Your task to perform on an android device: add a contact in the contacts app Image 0: 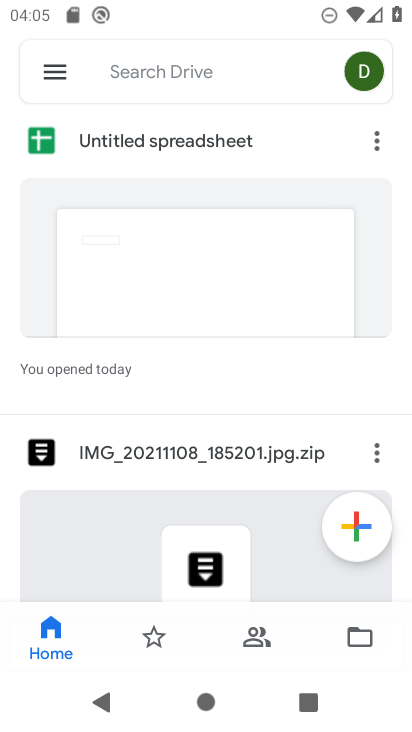
Step 0: press home button
Your task to perform on an android device: add a contact in the contacts app Image 1: 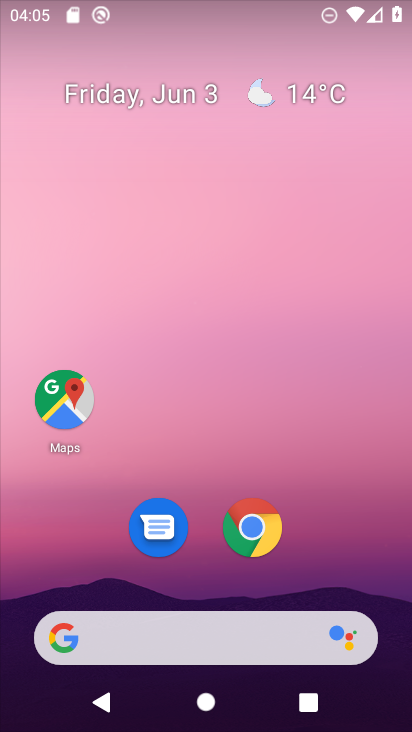
Step 1: drag from (339, 559) to (200, 9)
Your task to perform on an android device: add a contact in the contacts app Image 2: 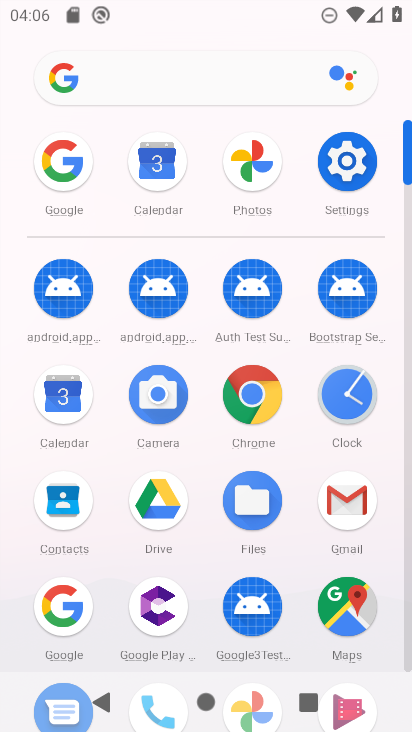
Step 2: click (63, 502)
Your task to perform on an android device: add a contact in the contacts app Image 3: 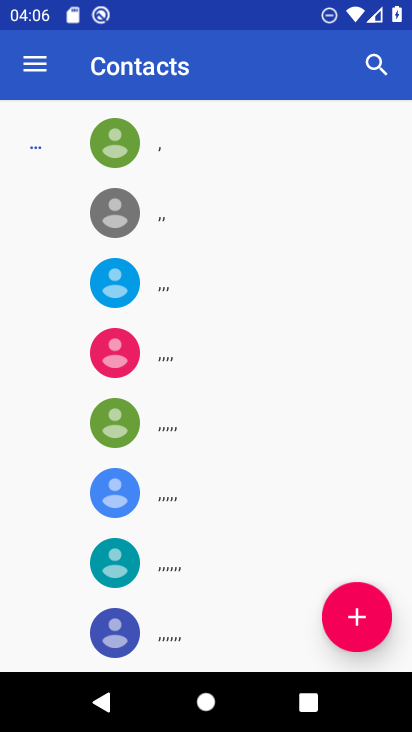
Step 3: click (355, 610)
Your task to perform on an android device: add a contact in the contacts app Image 4: 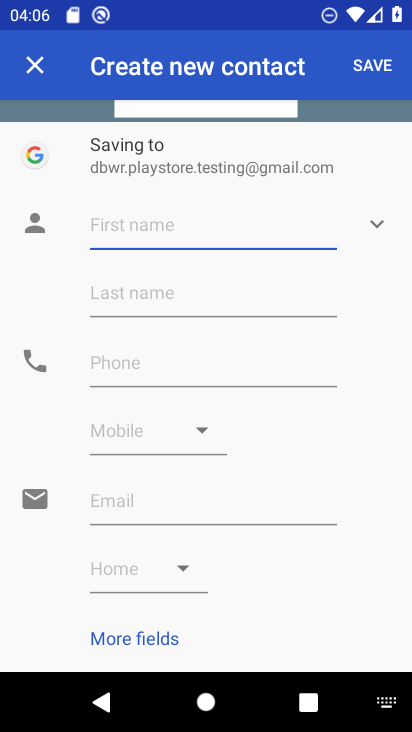
Step 4: click (231, 222)
Your task to perform on an android device: add a contact in the contacts app Image 5: 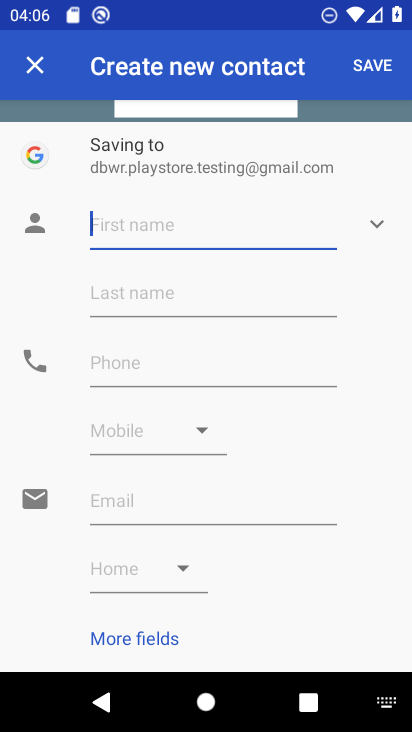
Step 5: type "Ratandeep"
Your task to perform on an android device: add a contact in the contacts app Image 6: 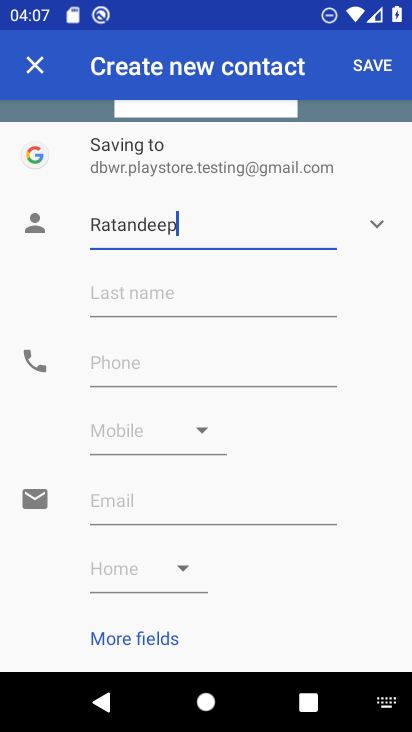
Step 6: click (256, 304)
Your task to perform on an android device: add a contact in the contacts app Image 7: 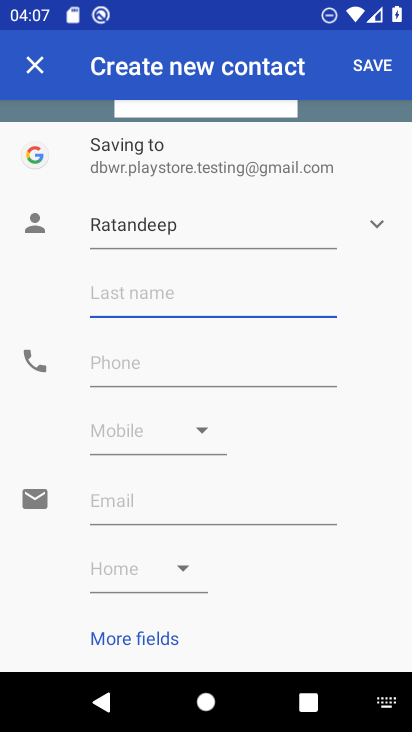
Step 7: type "Singh"
Your task to perform on an android device: add a contact in the contacts app Image 8: 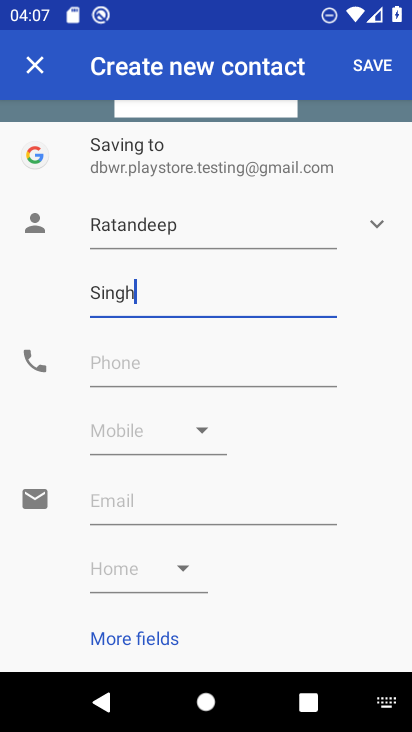
Step 8: click (193, 359)
Your task to perform on an android device: add a contact in the contacts app Image 9: 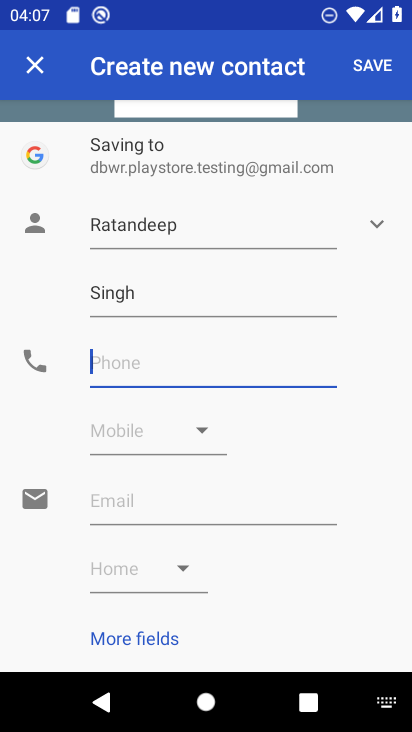
Step 9: type "9907581804"
Your task to perform on an android device: add a contact in the contacts app Image 10: 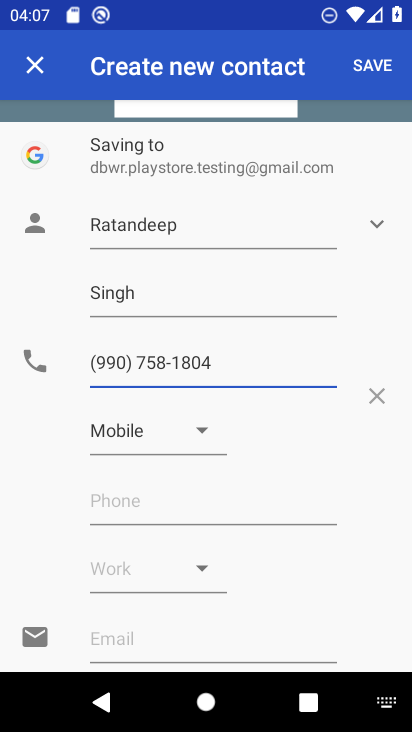
Step 10: click (379, 60)
Your task to perform on an android device: add a contact in the contacts app Image 11: 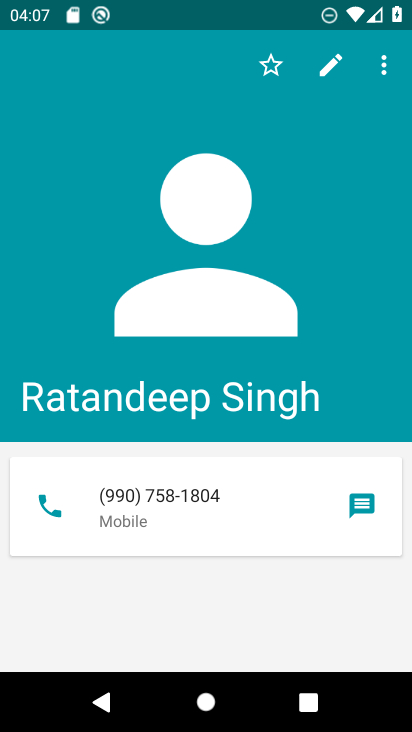
Step 11: task complete